Your task to perform on an android device: turn off translation in the chrome app Image 0: 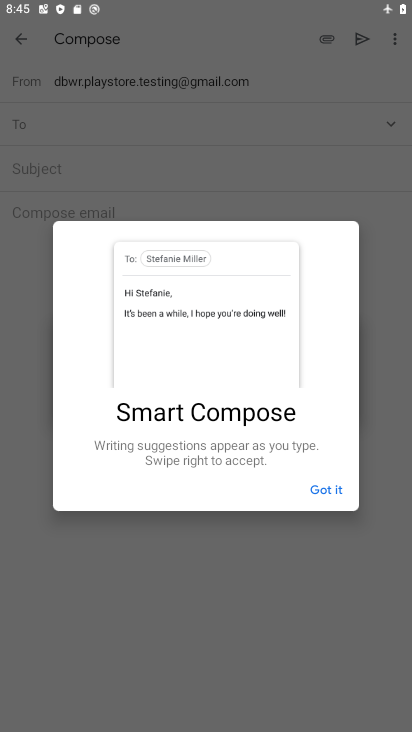
Step 0: press home button
Your task to perform on an android device: turn off translation in the chrome app Image 1: 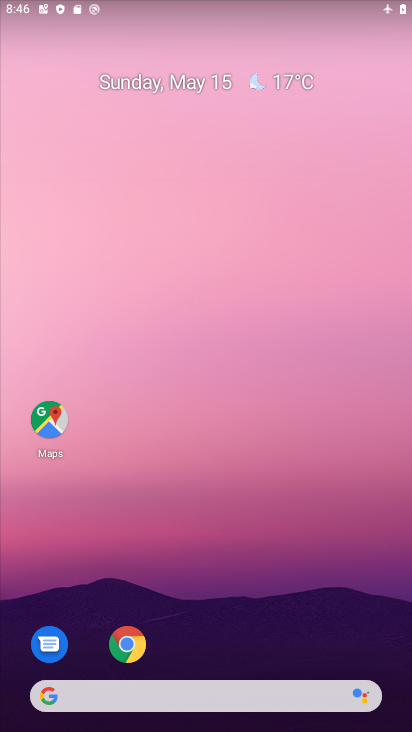
Step 1: drag from (146, 702) to (207, 191)
Your task to perform on an android device: turn off translation in the chrome app Image 2: 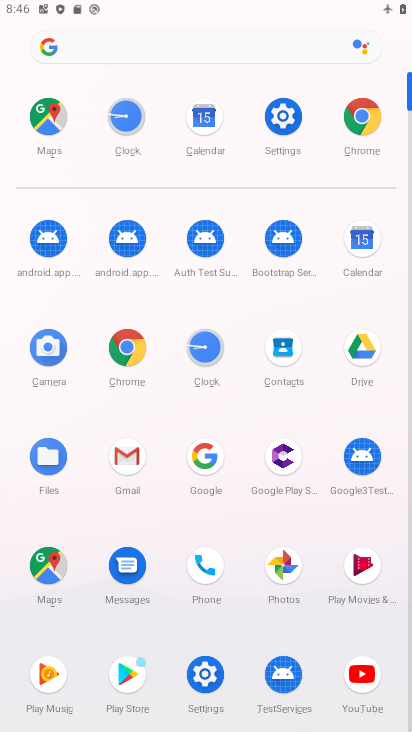
Step 2: click (352, 121)
Your task to perform on an android device: turn off translation in the chrome app Image 3: 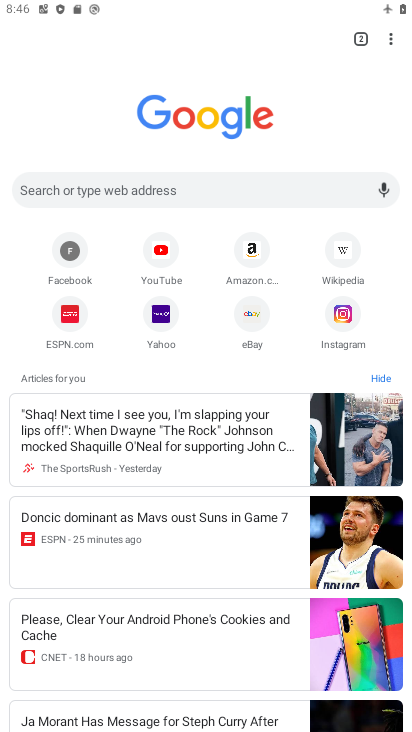
Step 3: click (389, 37)
Your task to perform on an android device: turn off translation in the chrome app Image 4: 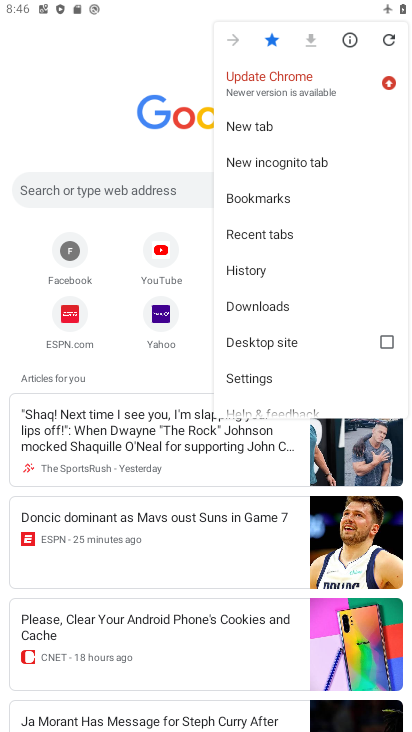
Step 4: click (260, 370)
Your task to perform on an android device: turn off translation in the chrome app Image 5: 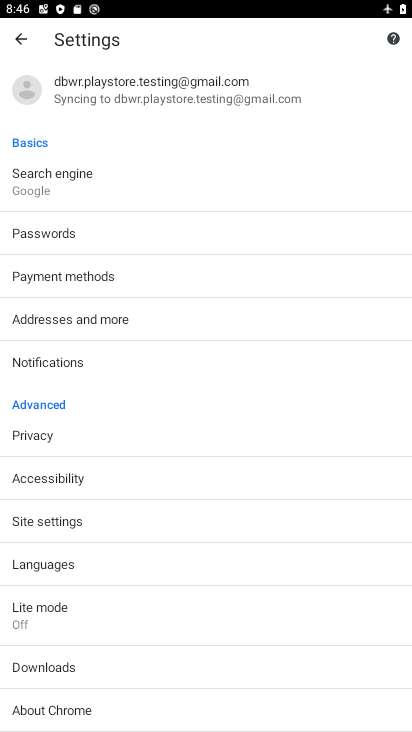
Step 5: click (88, 567)
Your task to perform on an android device: turn off translation in the chrome app Image 6: 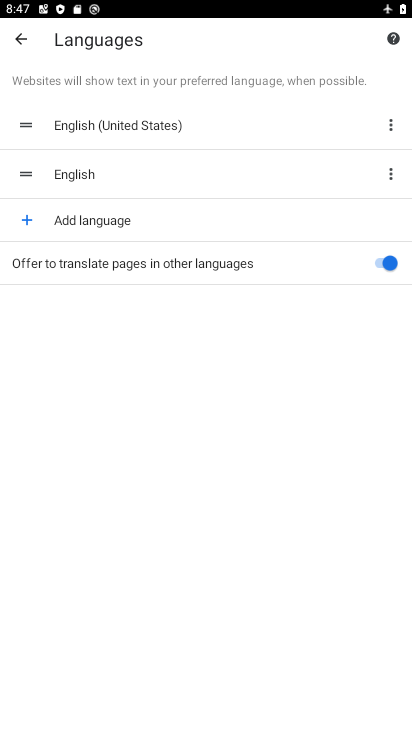
Step 6: click (373, 258)
Your task to perform on an android device: turn off translation in the chrome app Image 7: 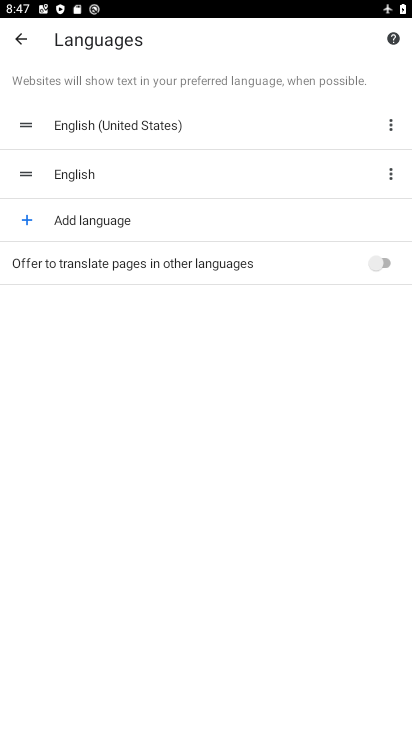
Step 7: task complete